Your task to perform on an android device: change the clock style Image 0: 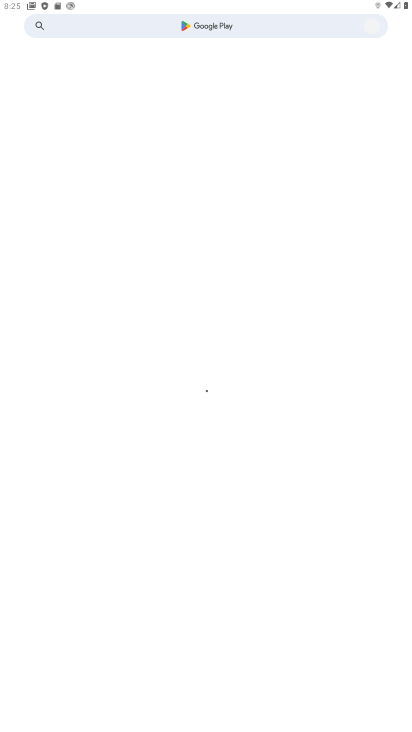
Step 0: press home button
Your task to perform on an android device: change the clock style Image 1: 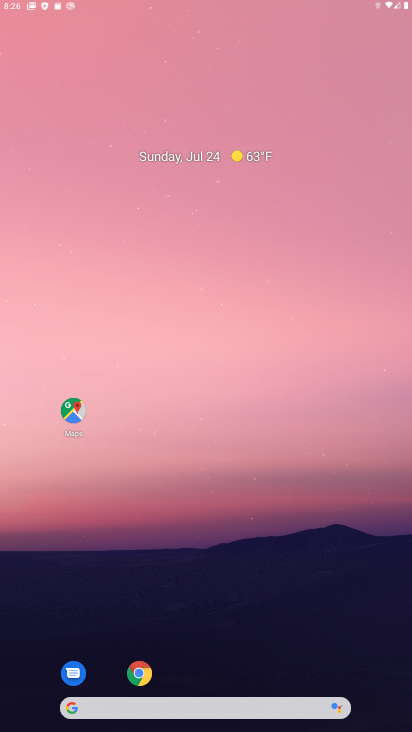
Step 1: drag from (198, 654) to (159, 42)
Your task to perform on an android device: change the clock style Image 2: 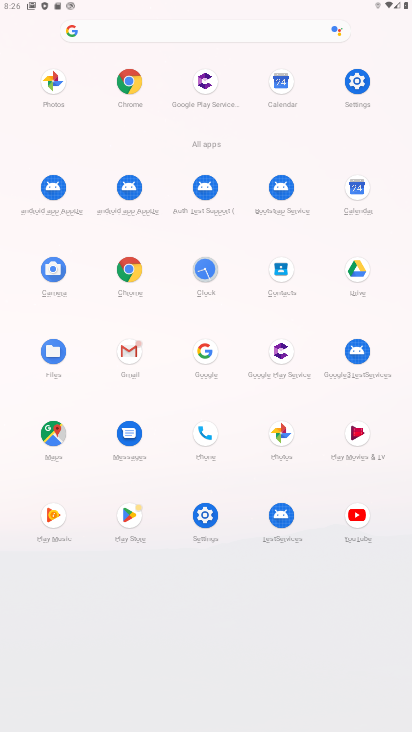
Step 2: click (197, 266)
Your task to perform on an android device: change the clock style Image 3: 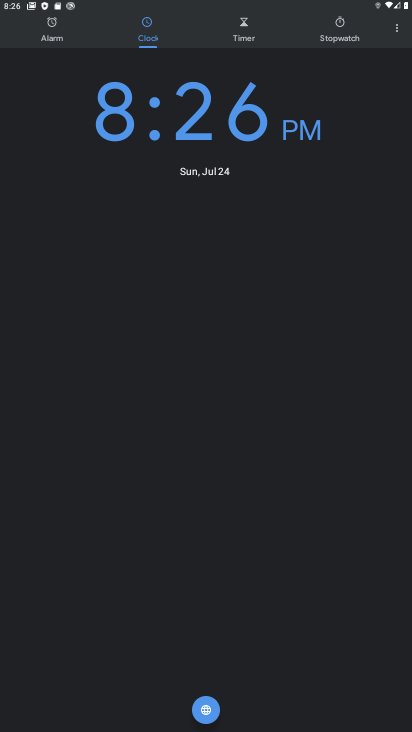
Step 3: press home button
Your task to perform on an android device: change the clock style Image 4: 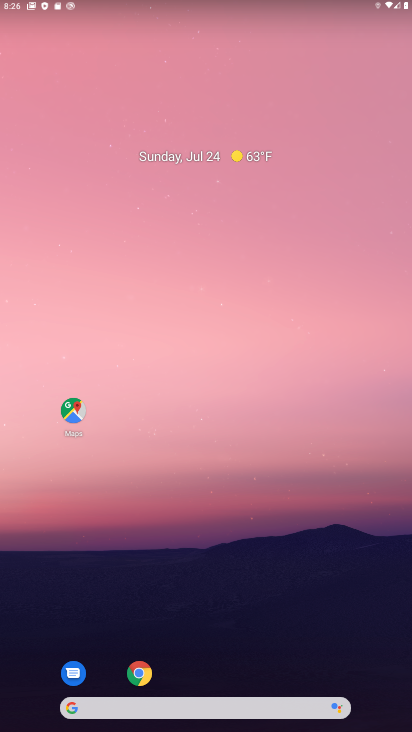
Step 4: drag from (205, 697) to (63, 61)
Your task to perform on an android device: change the clock style Image 5: 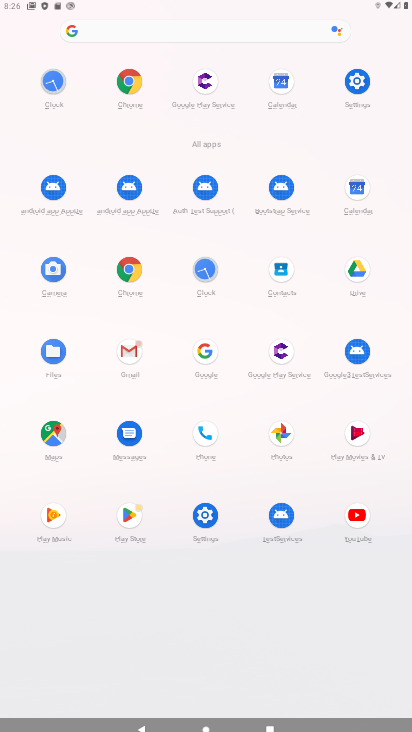
Step 5: click (206, 257)
Your task to perform on an android device: change the clock style Image 6: 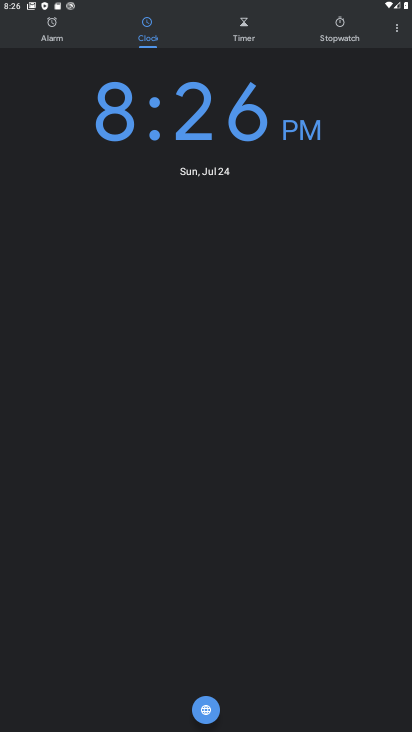
Step 6: click (389, 43)
Your task to perform on an android device: change the clock style Image 7: 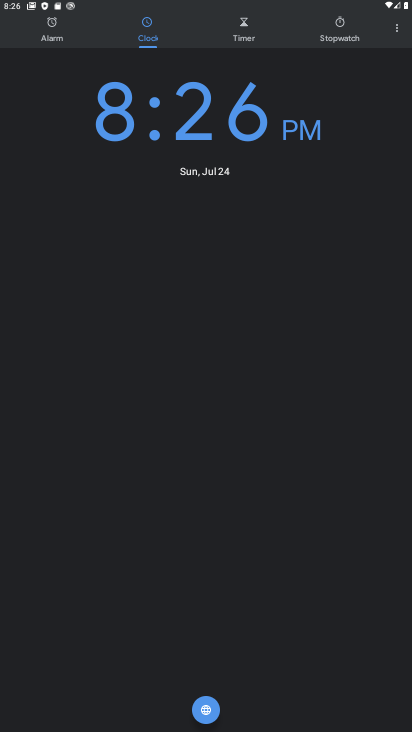
Step 7: click (397, 26)
Your task to perform on an android device: change the clock style Image 8: 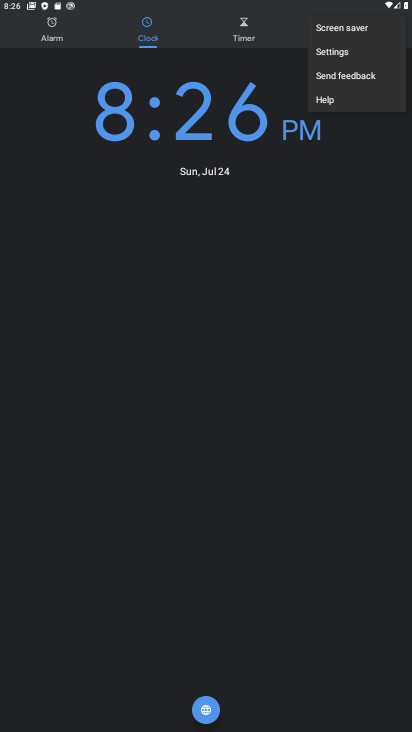
Step 8: click (331, 49)
Your task to perform on an android device: change the clock style Image 9: 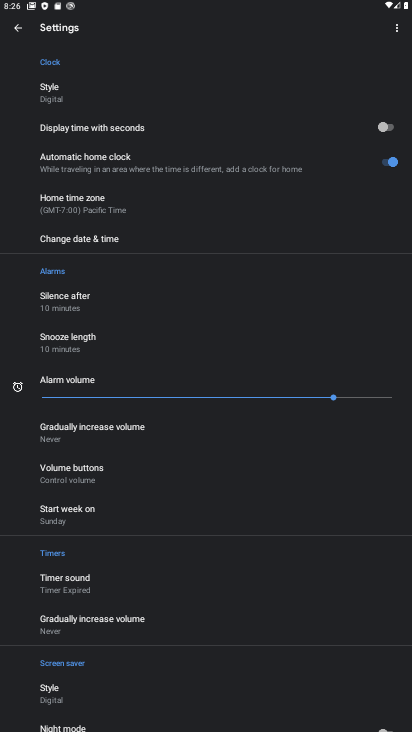
Step 9: click (42, 101)
Your task to perform on an android device: change the clock style Image 10: 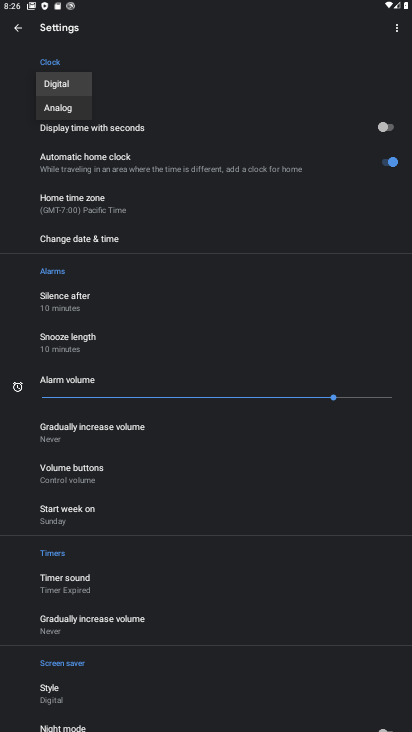
Step 10: click (60, 117)
Your task to perform on an android device: change the clock style Image 11: 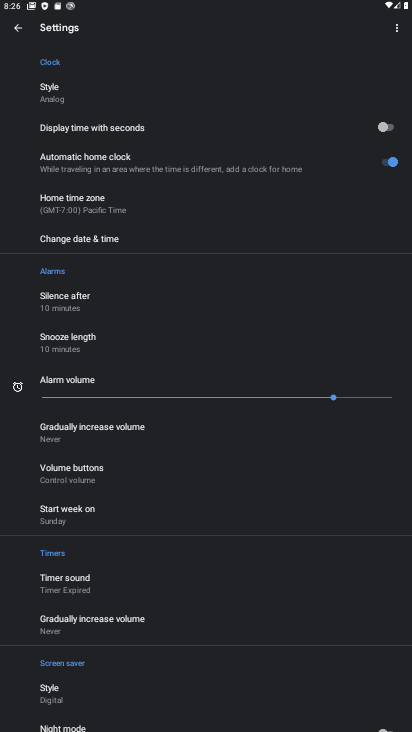
Step 11: task complete